Your task to perform on an android device: Open display settings Image 0: 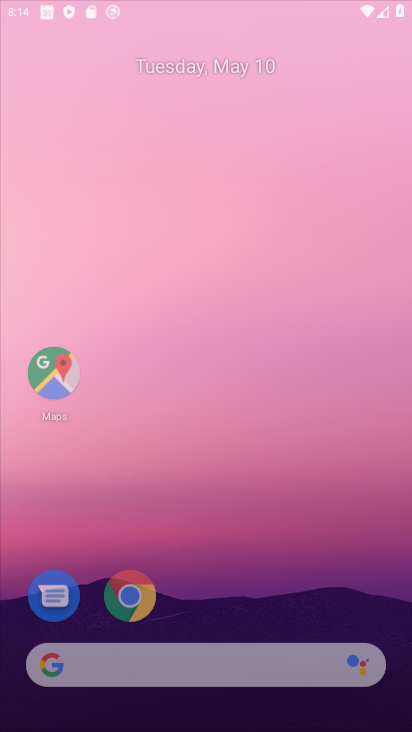
Step 0: click (185, 185)
Your task to perform on an android device: Open display settings Image 1: 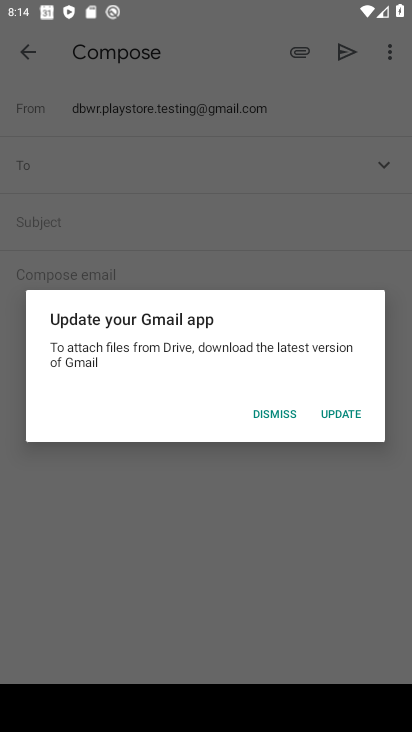
Step 1: press home button
Your task to perform on an android device: Open display settings Image 2: 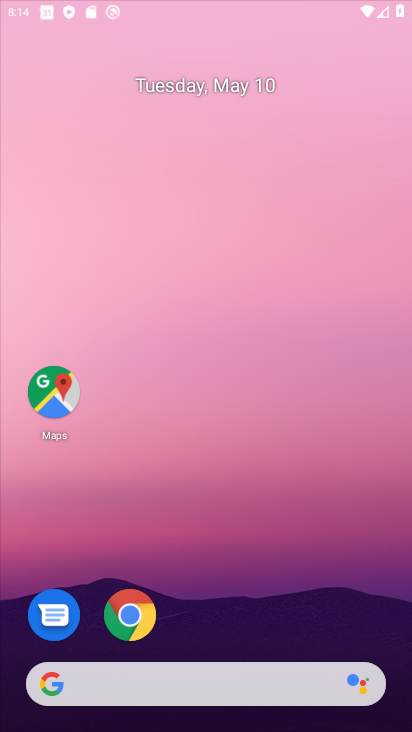
Step 2: drag from (190, 591) to (178, 304)
Your task to perform on an android device: Open display settings Image 3: 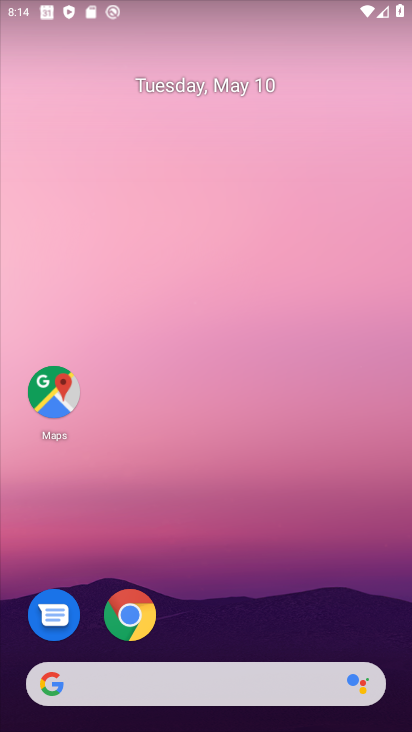
Step 3: drag from (198, 655) to (191, 241)
Your task to perform on an android device: Open display settings Image 4: 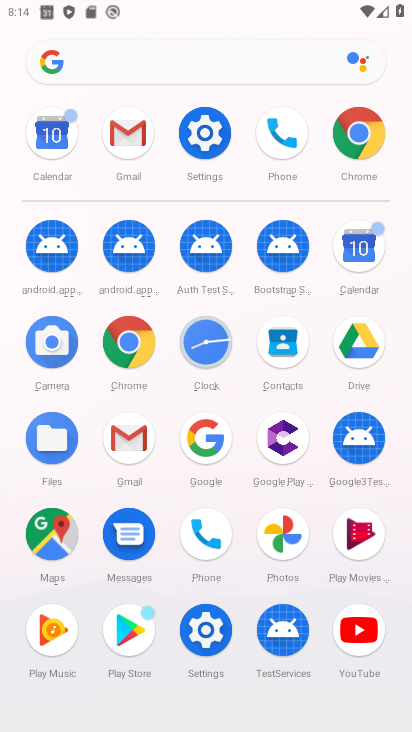
Step 4: click (212, 134)
Your task to perform on an android device: Open display settings Image 5: 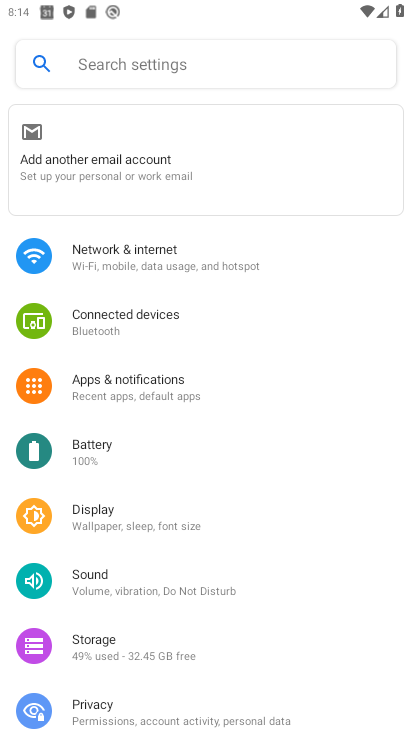
Step 5: click (119, 509)
Your task to perform on an android device: Open display settings Image 6: 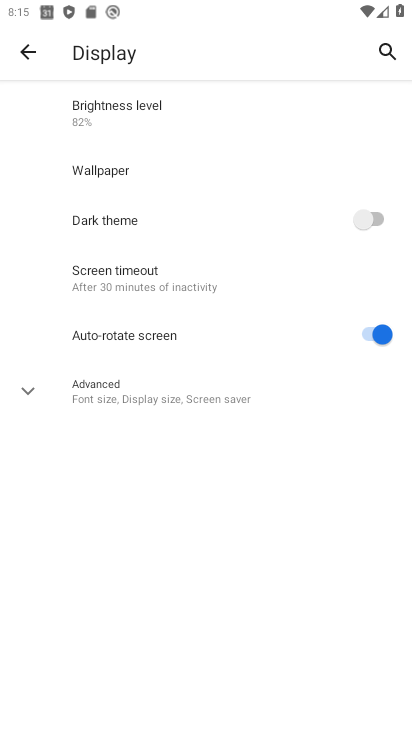
Step 6: task complete